Your task to perform on an android device: What's the weather going to be this weekend? Image 0: 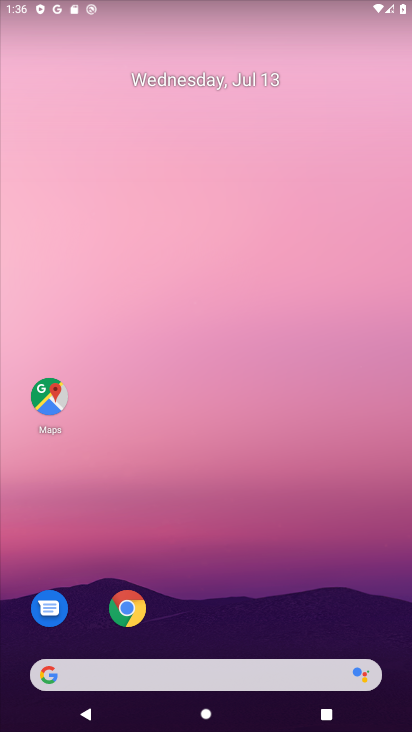
Step 0: click (146, 673)
Your task to perform on an android device: What's the weather going to be this weekend? Image 1: 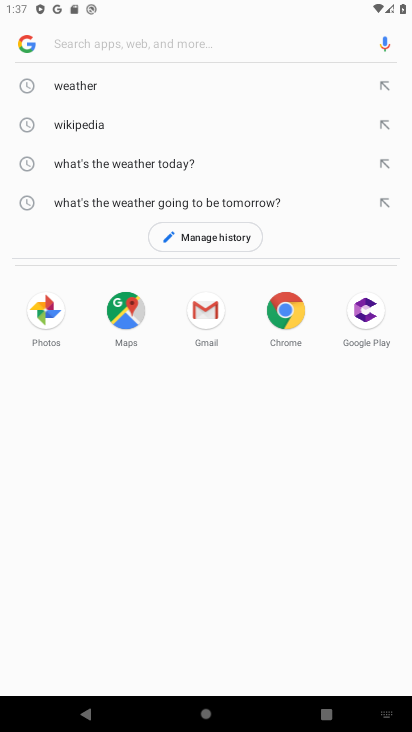
Step 1: type "weekend weather"
Your task to perform on an android device: What's the weather going to be this weekend? Image 2: 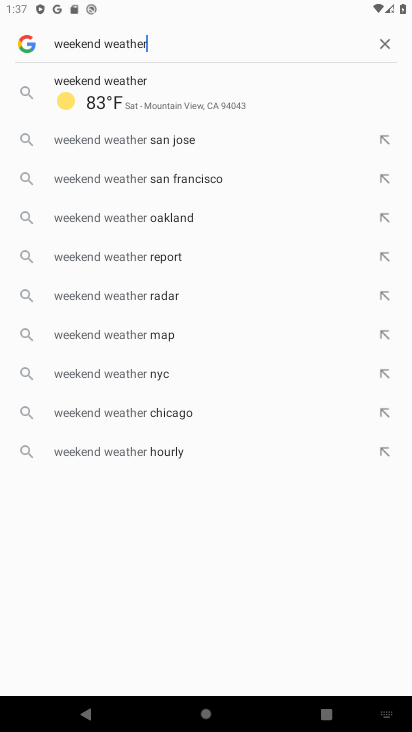
Step 2: task complete